Your task to perform on an android device: check google app version Image 0: 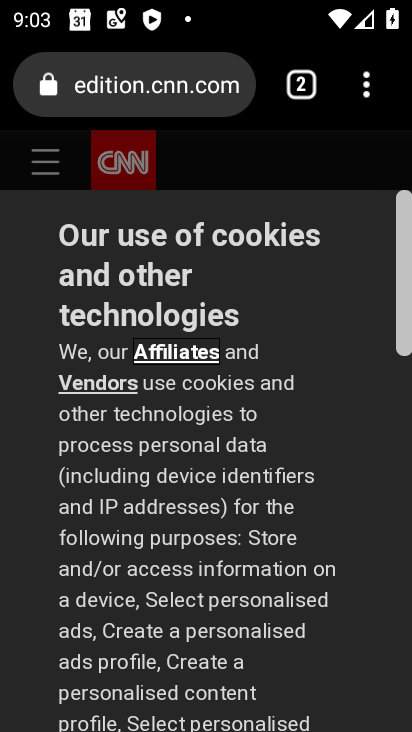
Step 0: press home button
Your task to perform on an android device: check google app version Image 1: 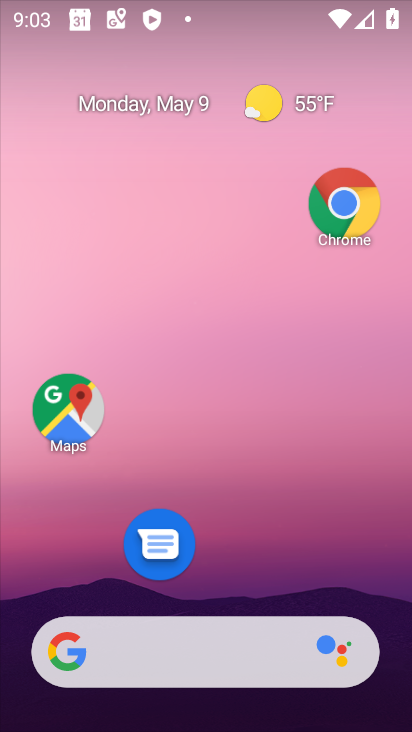
Step 1: drag from (235, 583) to (233, 224)
Your task to perform on an android device: check google app version Image 2: 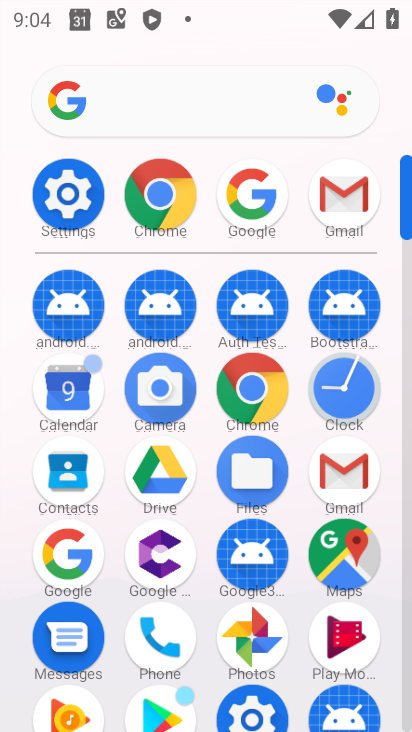
Step 2: click (235, 191)
Your task to perform on an android device: check google app version Image 3: 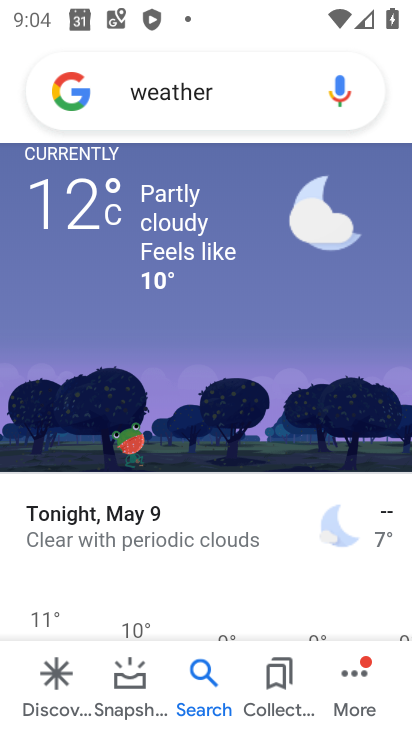
Step 3: click (358, 657)
Your task to perform on an android device: check google app version Image 4: 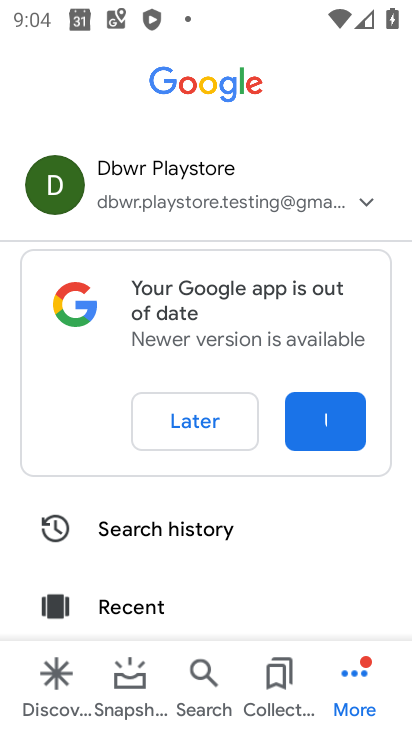
Step 4: drag from (202, 611) to (223, 208)
Your task to perform on an android device: check google app version Image 5: 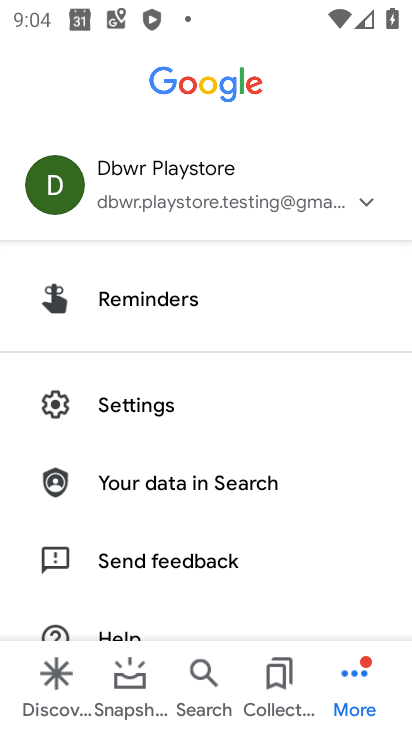
Step 5: click (91, 397)
Your task to perform on an android device: check google app version Image 6: 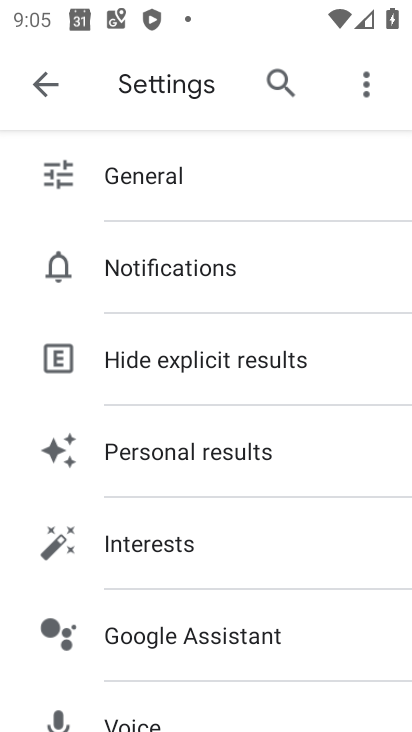
Step 6: drag from (210, 629) to (280, 176)
Your task to perform on an android device: check google app version Image 7: 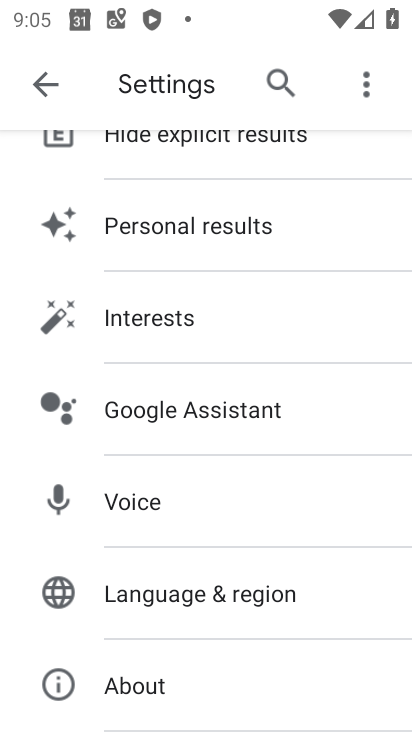
Step 7: drag from (240, 647) to (261, 369)
Your task to perform on an android device: check google app version Image 8: 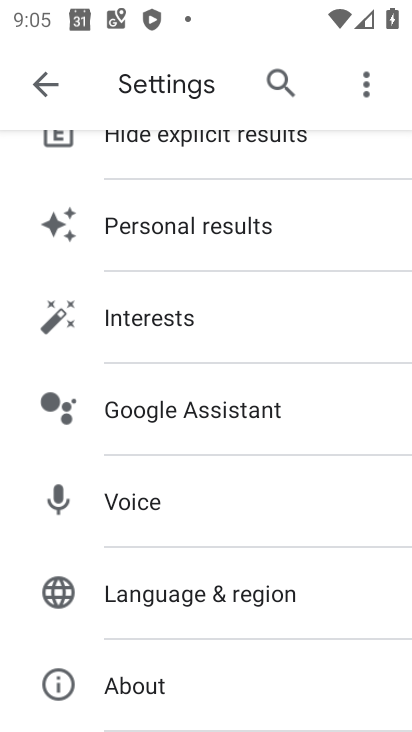
Step 8: click (190, 689)
Your task to perform on an android device: check google app version Image 9: 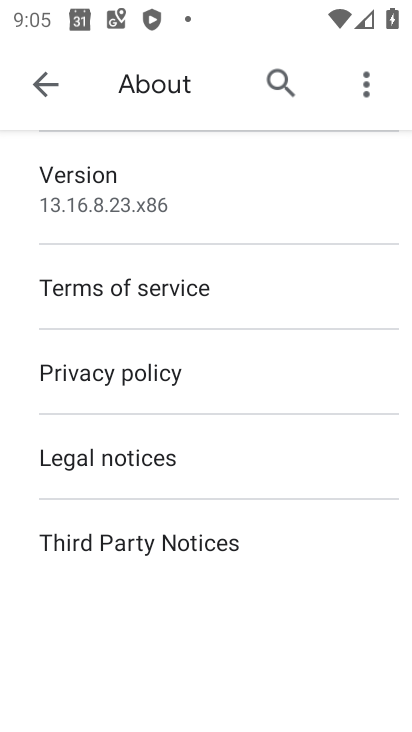
Step 9: click (163, 182)
Your task to perform on an android device: check google app version Image 10: 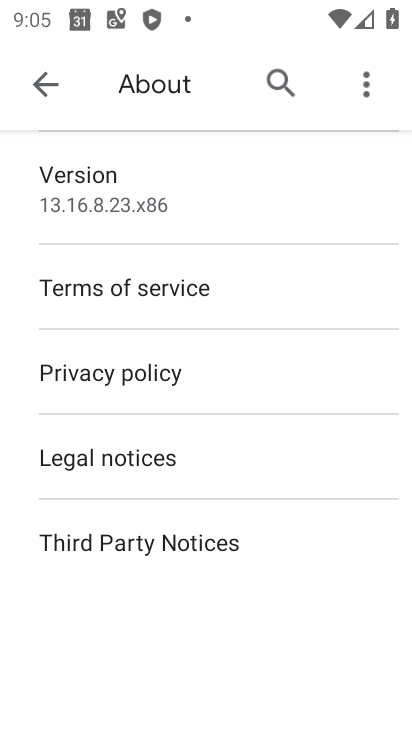
Step 10: click (144, 183)
Your task to perform on an android device: check google app version Image 11: 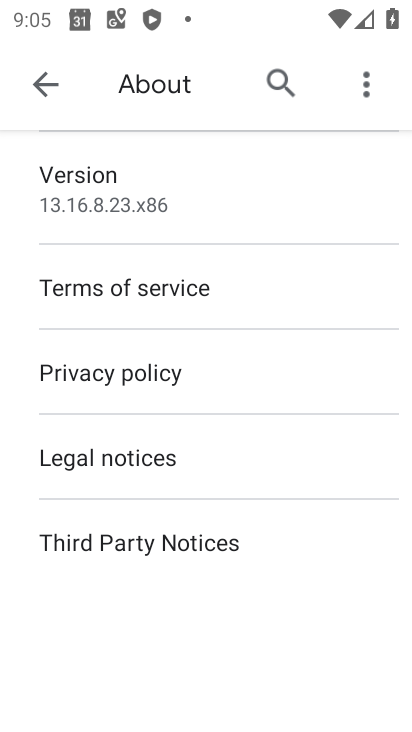
Step 11: click (144, 183)
Your task to perform on an android device: check google app version Image 12: 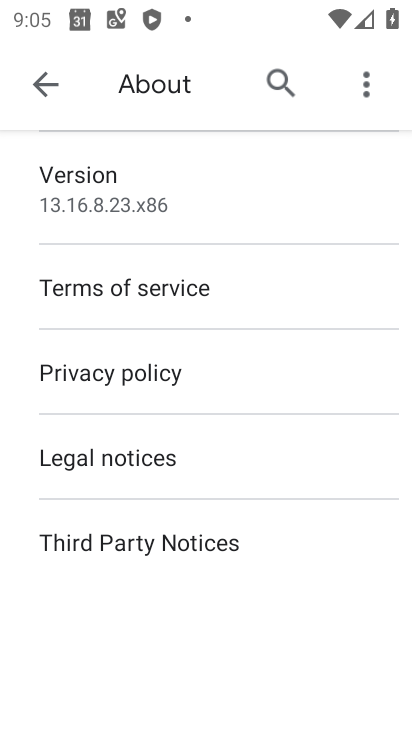
Step 12: task complete